Your task to perform on an android device: turn off wifi Image 0: 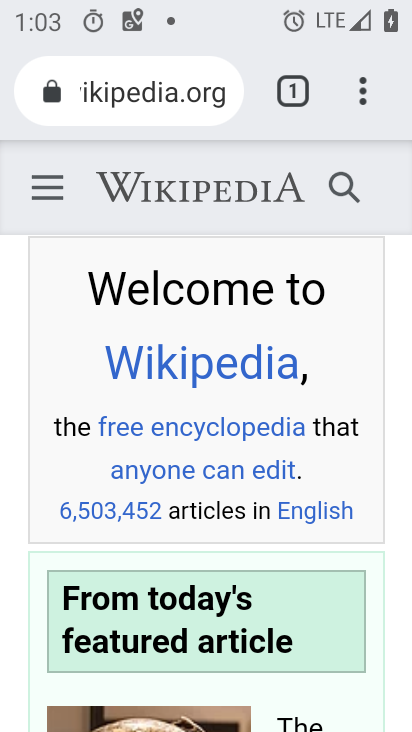
Step 0: press home button
Your task to perform on an android device: turn off wifi Image 1: 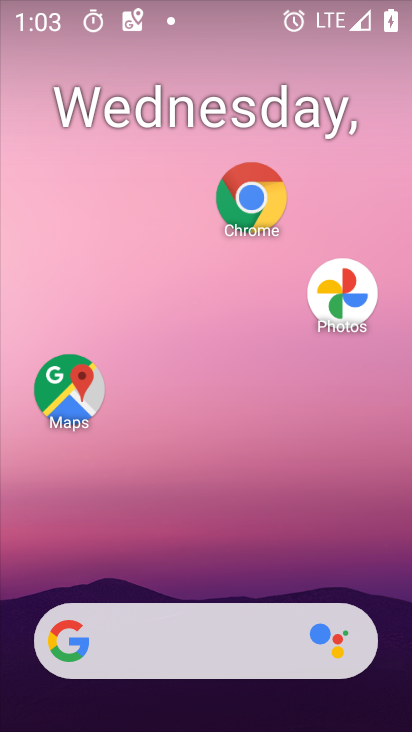
Step 1: drag from (213, 677) to (159, 140)
Your task to perform on an android device: turn off wifi Image 2: 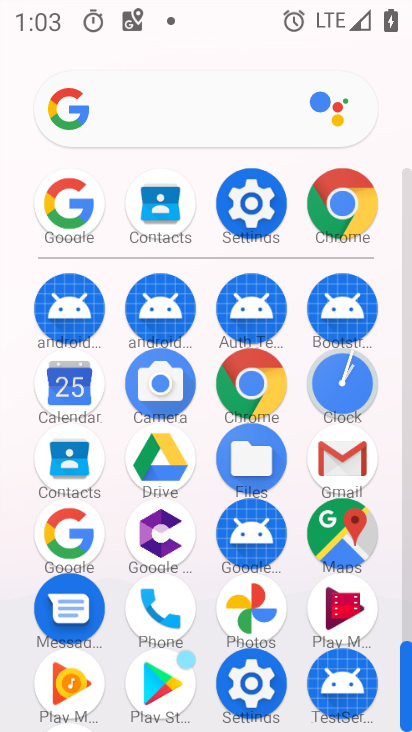
Step 2: click (245, 206)
Your task to perform on an android device: turn off wifi Image 3: 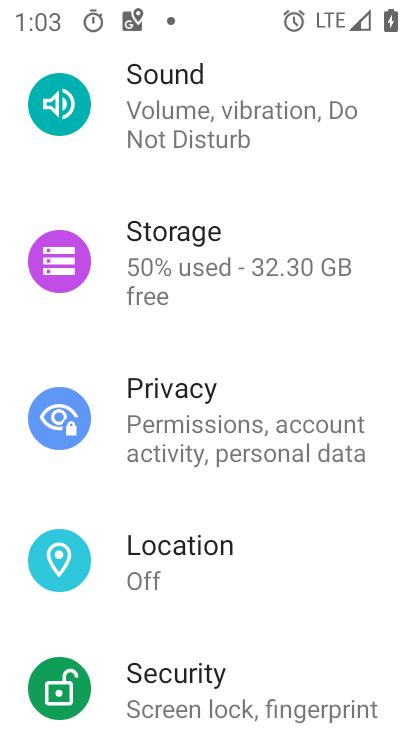
Step 3: drag from (231, 212) to (294, 695)
Your task to perform on an android device: turn off wifi Image 4: 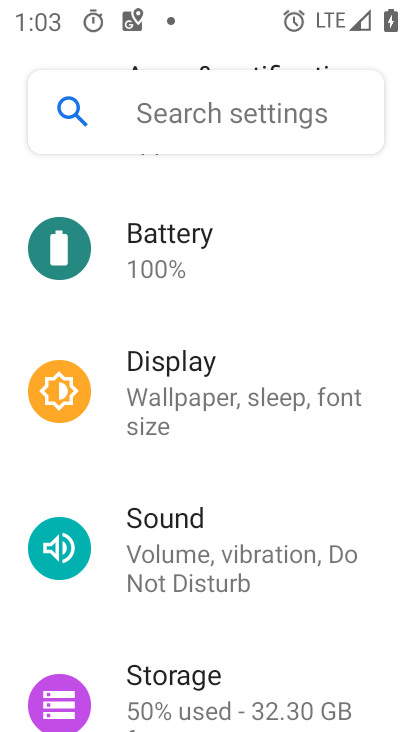
Step 4: drag from (251, 336) to (216, 692)
Your task to perform on an android device: turn off wifi Image 5: 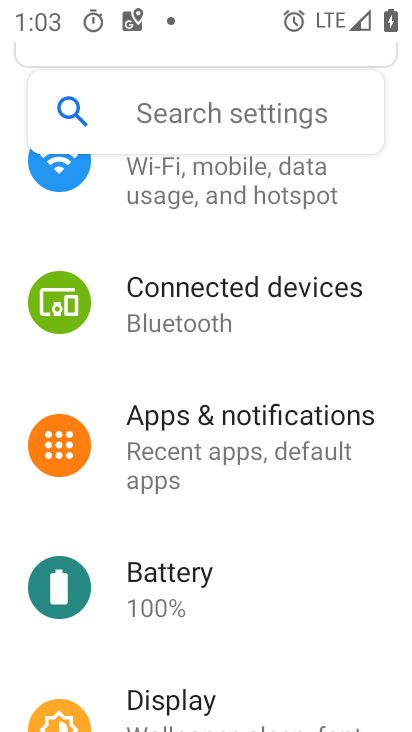
Step 5: drag from (223, 366) to (171, 603)
Your task to perform on an android device: turn off wifi Image 6: 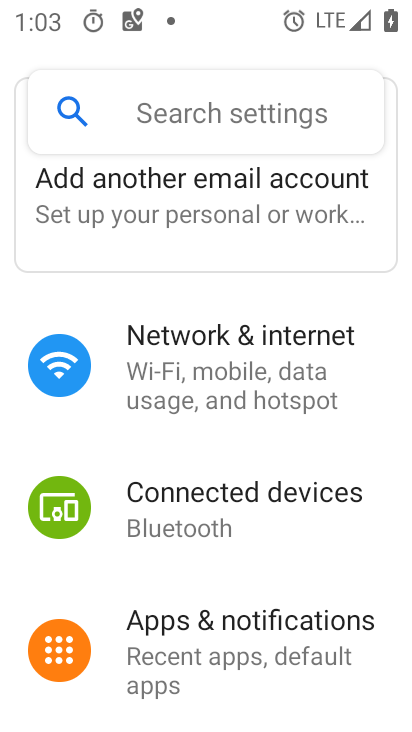
Step 6: click (201, 375)
Your task to perform on an android device: turn off wifi Image 7: 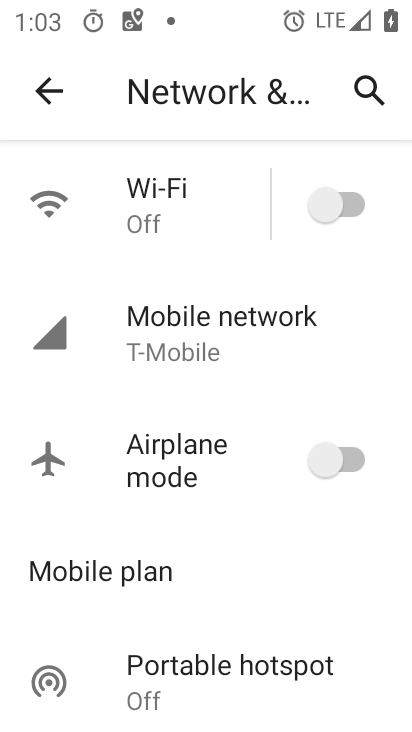
Step 7: task complete